Your task to perform on an android device: Open Reddit.com Image 0: 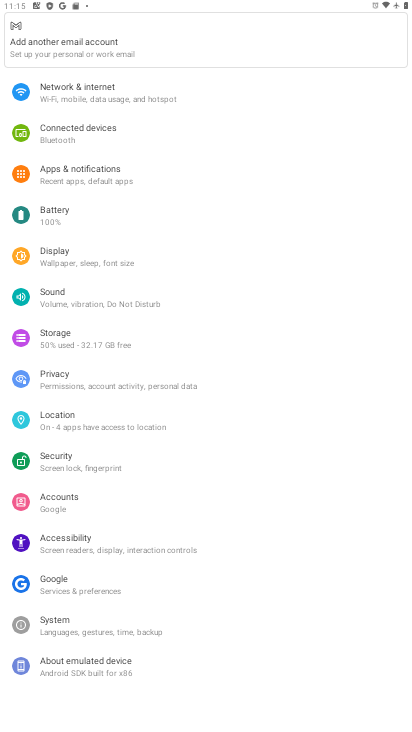
Step 0: press home button
Your task to perform on an android device: Open Reddit.com Image 1: 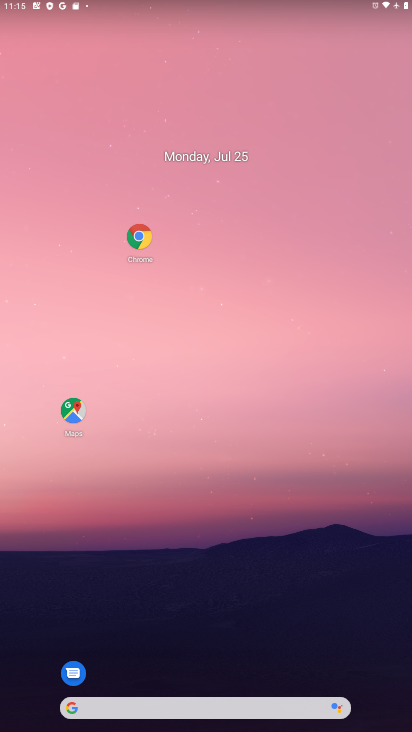
Step 1: click (198, 710)
Your task to perform on an android device: Open Reddit.com Image 2: 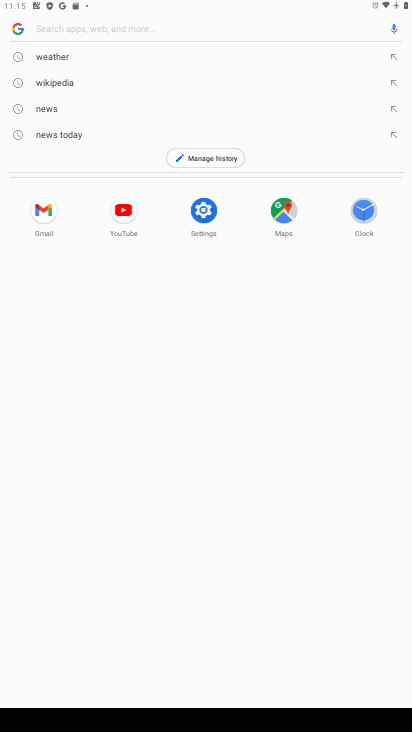
Step 2: type "reddit.com"
Your task to perform on an android device: Open Reddit.com Image 3: 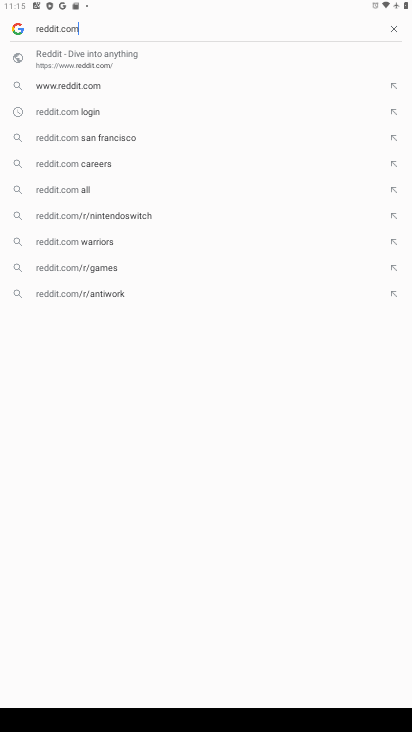
Step 3: click (137, 66)
Your task to perform on an android device: Open Reddit.com Image 4: 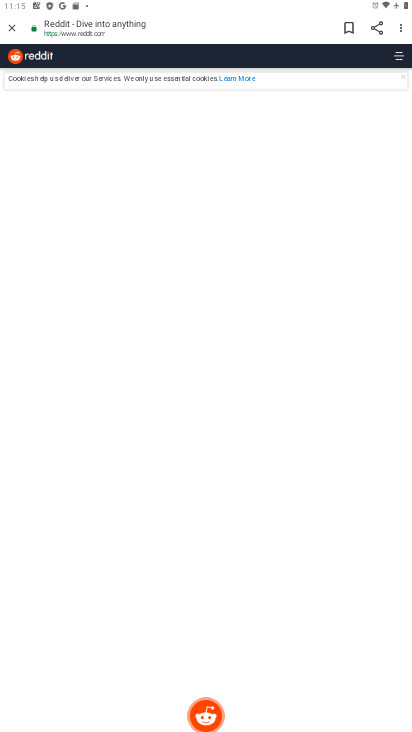
Step 4: task complete